Your task to perform on an android device: turn off notifications settings in the gmail app Image 0: 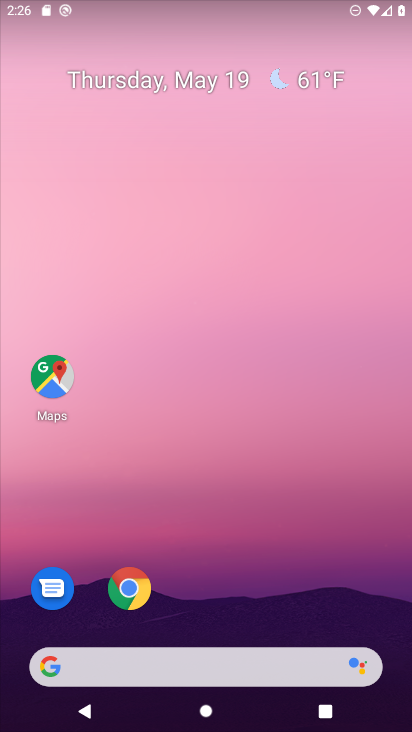
Step 0: drag from (374, 633) to (408, 0)
Your task to perform on an android device: turn off notifications settings in the gmail app Image 1: 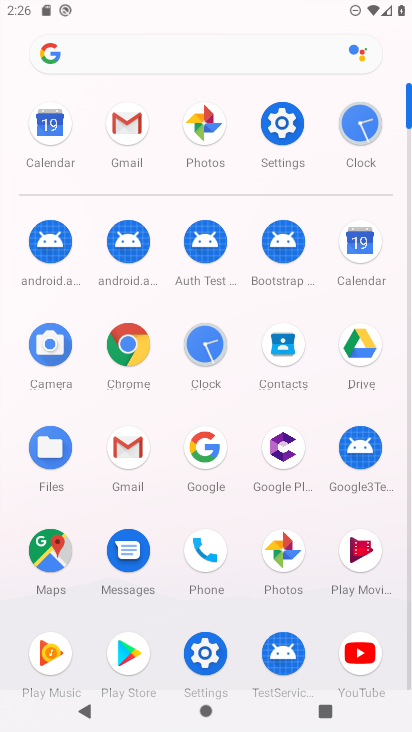
Step 1: click (140, 132)
Your task to perform on an android device: turn off notifications settings in the gmail app Image 2: 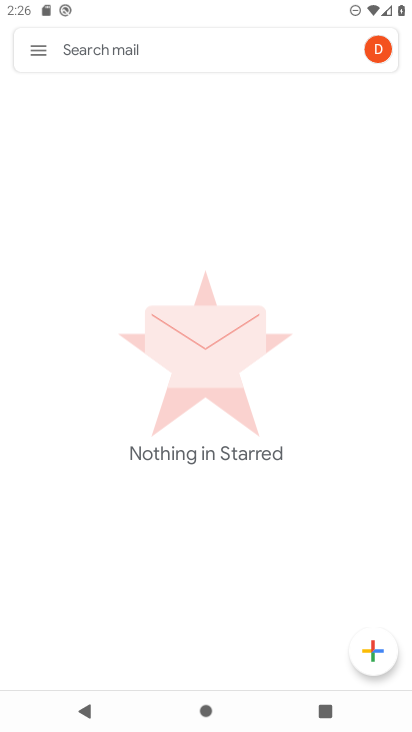
Step 2: click (36, 54)
Your task to perform on an android device: turn off notifications settings in the gmail app Image 3: 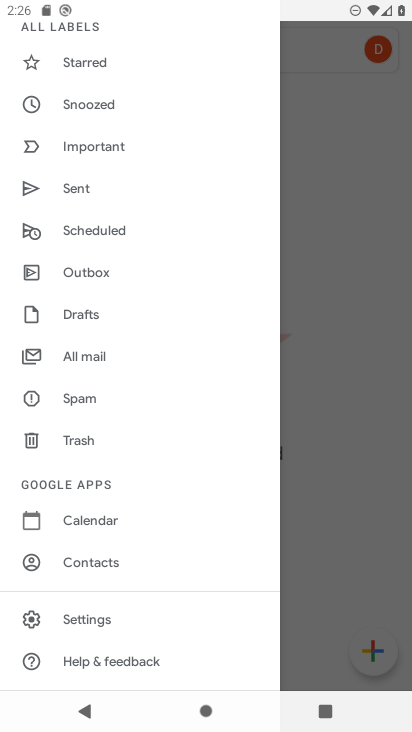
Step 3: click (86, 618)
Your task to perform on an android device: turn off notifications settings in the gmail app Image 4: 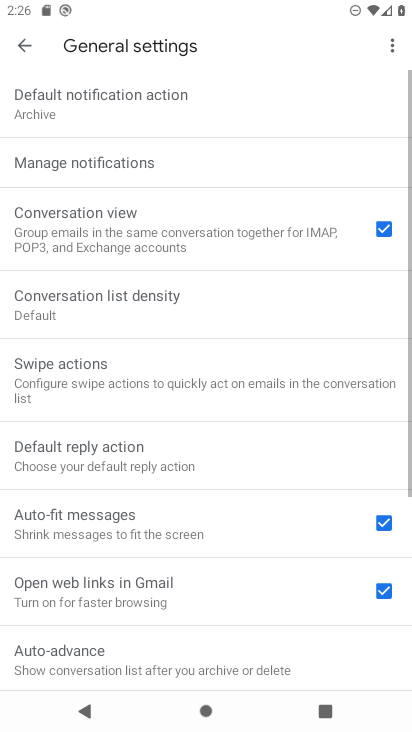
Step 4: click (101, 156)
Your task to perform on an android device: turn off notifications settings in the gmail app Image 5: 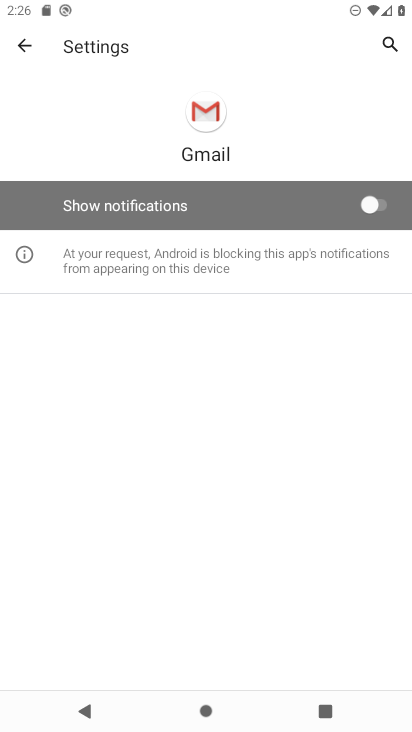
Step 5: task complete